Your task to perform on an android device: Go to Google maps Image 0: 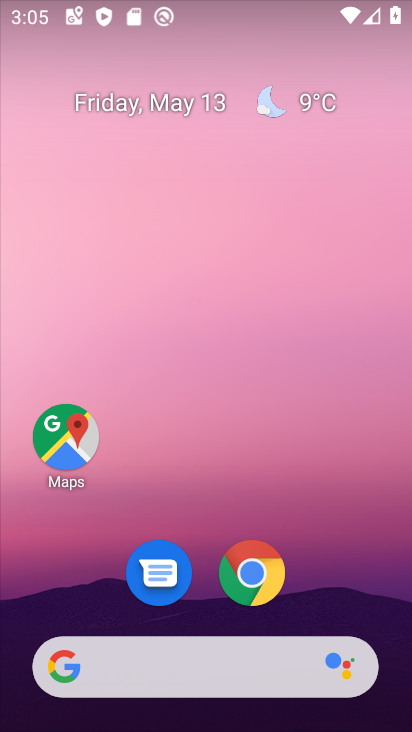
Step 0: click (70, 438)
Your task to perform on an android device: Go to Google maps Image 1: 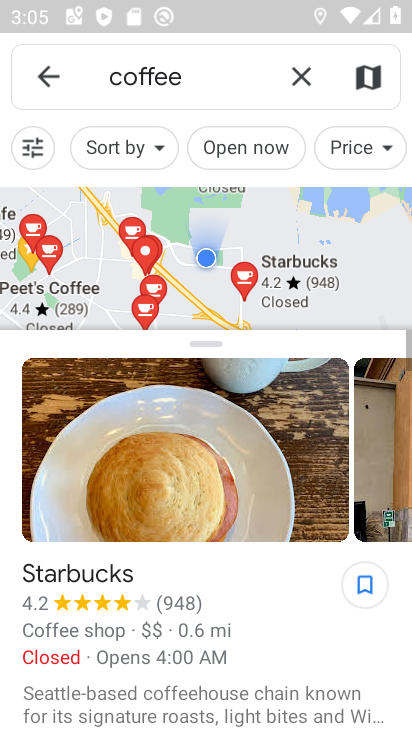
Step 1: task complete